Your task to perform on an android device: Open CNN.com Image 0: 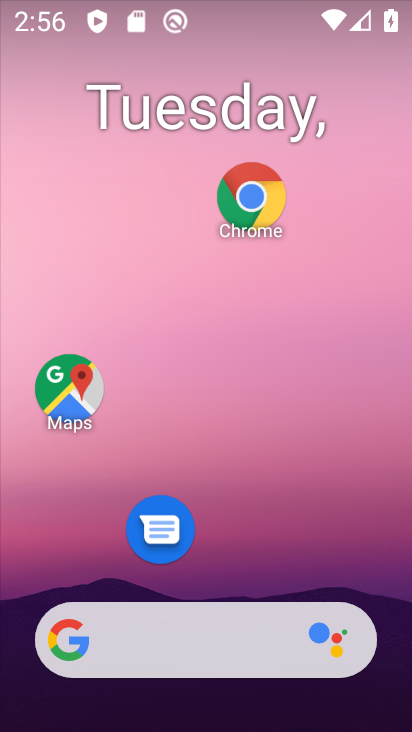
Step 0: drag from (195, 569) to (203, 191)
Your task to perform on an android device: Open CNN.com Image 1: 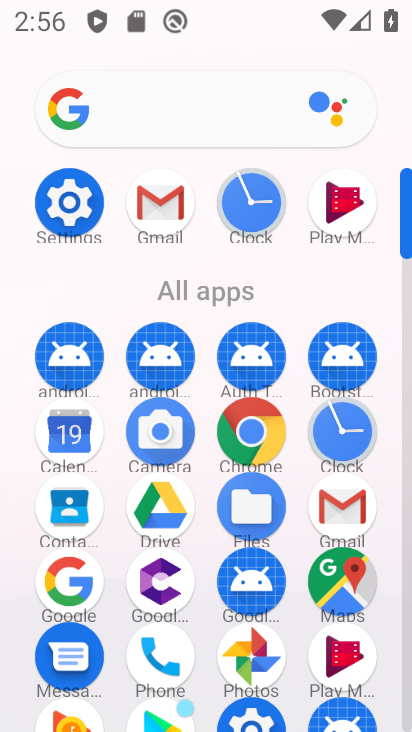
Step 1: click (251, 432)
Your task to perform on an android device: Open CNN.com Image 2: 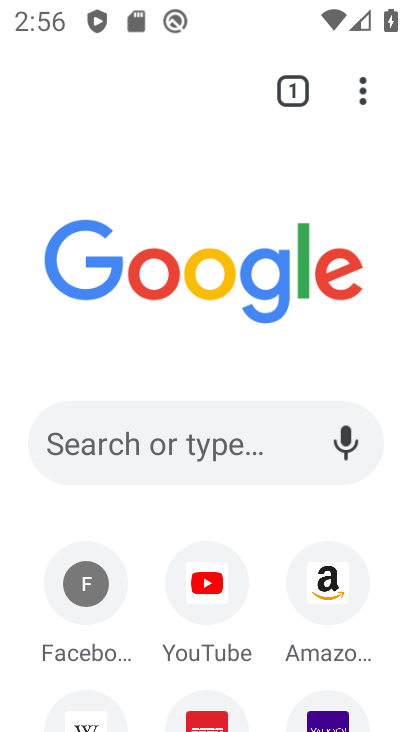
Step 2: click (97, 442)
Your task to perform on an android device: Open CNN.com Image 3: 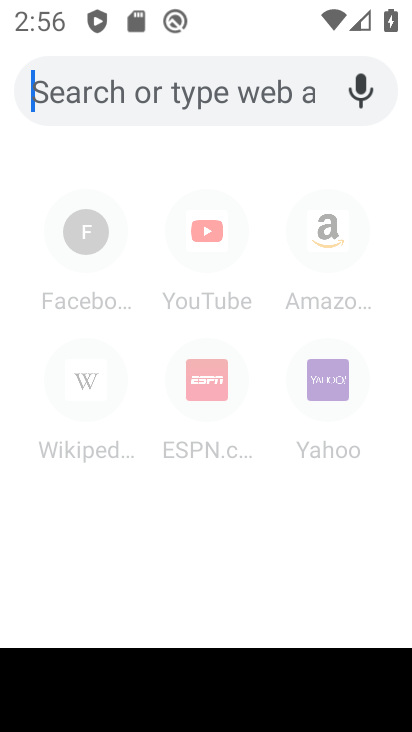
Step 3: type "CNN.com"
Your task to perform on an android device: Open CNN.com Image 4: 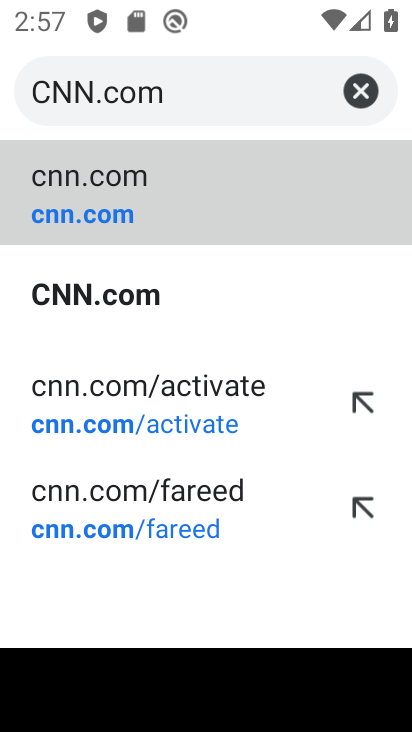
Step 4: click (122, 189)
Your task to perform on an android device: Open CNN.com Image 5: 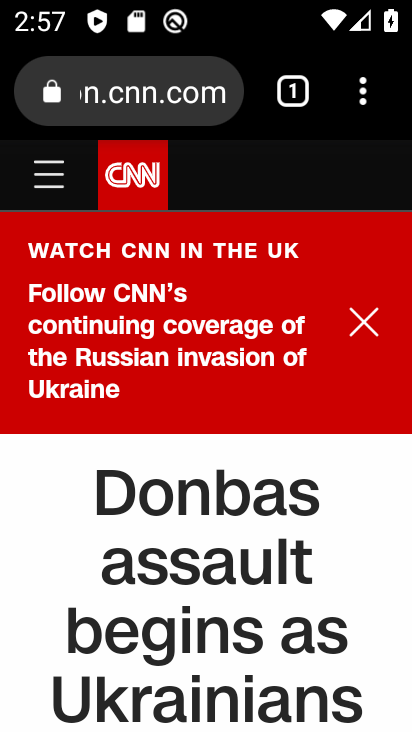
Step 5: drag from (225, 496) to (222, 276)
Your task to perform on an android device: Open CNN.com Image 6: 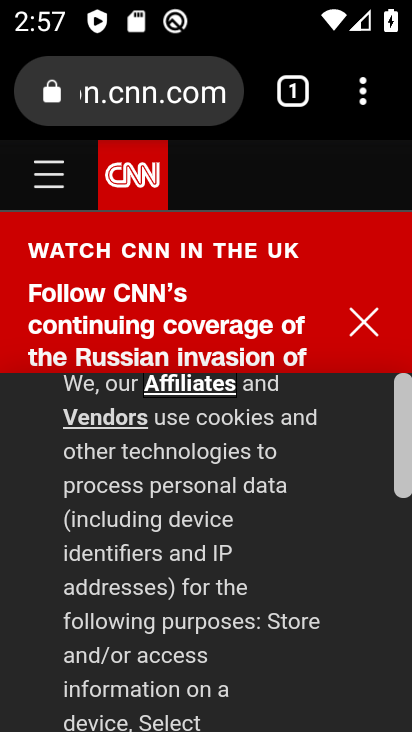
Step 6: click (360, 330)
Your task to perform on an android device: Open CNN.com Image 7: 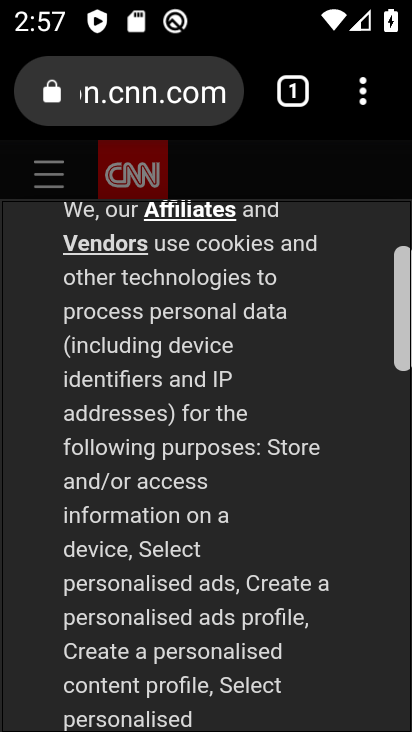
Step 7: task complete